Your task to perform on an android device: Open Amazon Image 0: 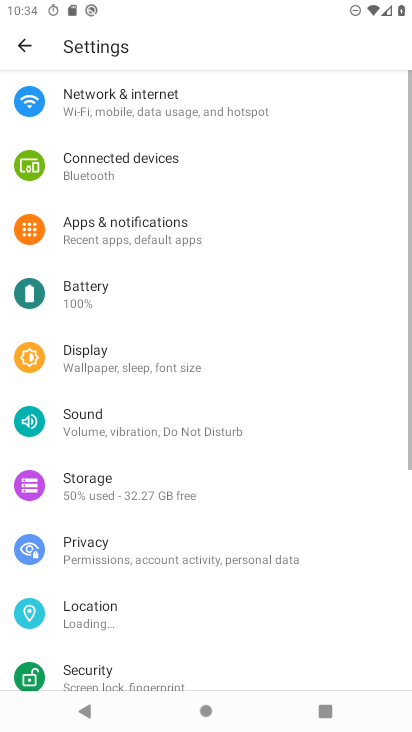
Step 0: press home button
Your task to perform on an android device: Open Amazon Image 1: 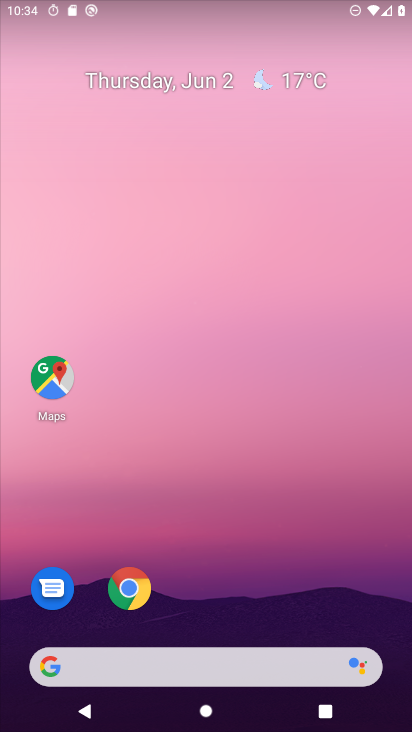
Step 1: click (300, 300)
Your task to perform on an android device: Open Amazon Image 2: 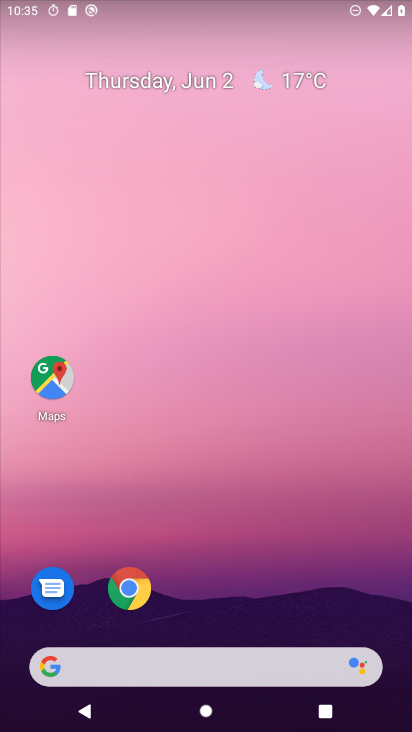
Step 2: drag from (211, 570) to (270, 163)
Your task to perform on an android device: Open Amazon Image 3: 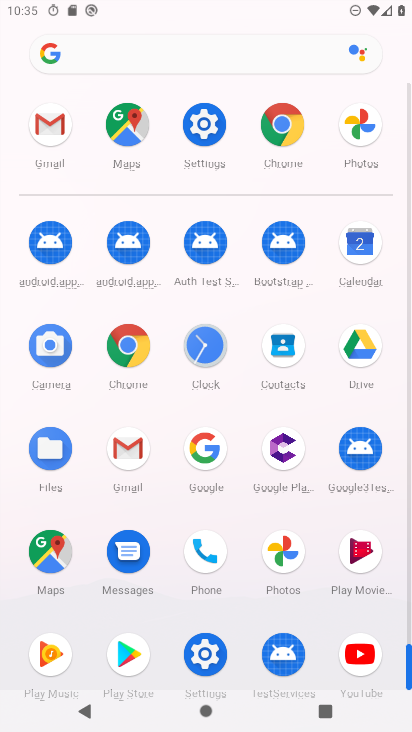
Step 3: click (277, 139)
Your task to perform on an android device: Open Amazon Image 4: 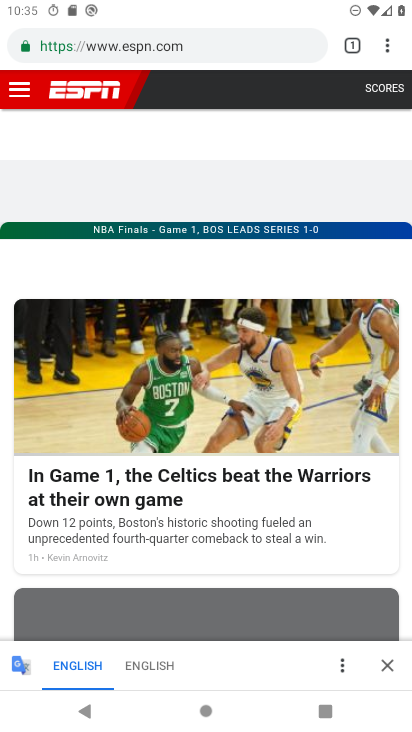
Step 4: click (238, 45)
Your task to perform on an android device: Open Amazon Image 5: 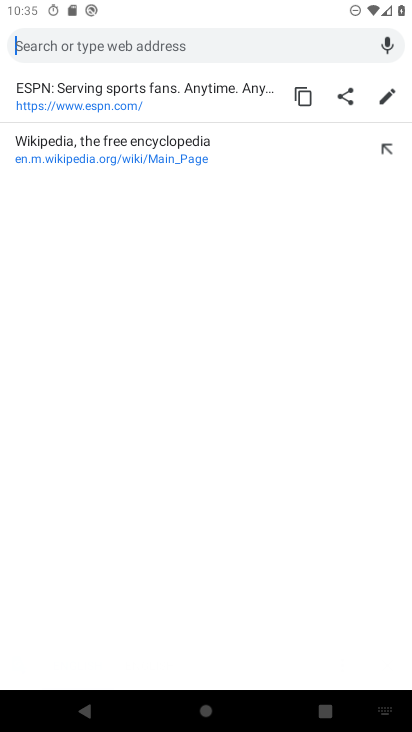
Step 5: type "amazon"
Your task to perform on an android device: Open Amazon Image 6: 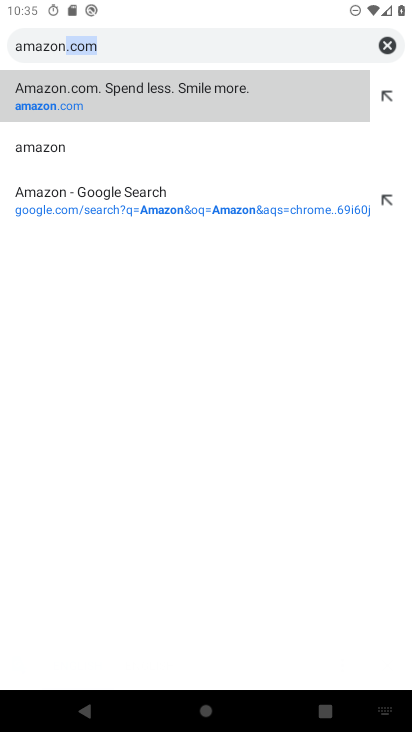
Step 6: click (199, 105)
Your task to perform on an android device: Open Amazon Image 7: 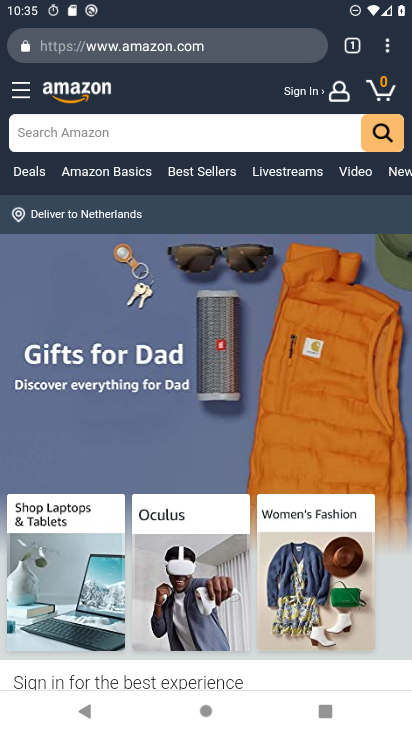
Step 7: task complete